Your task to perform on an android device: open app "Google Photos" (install if not already installed) Image 0: 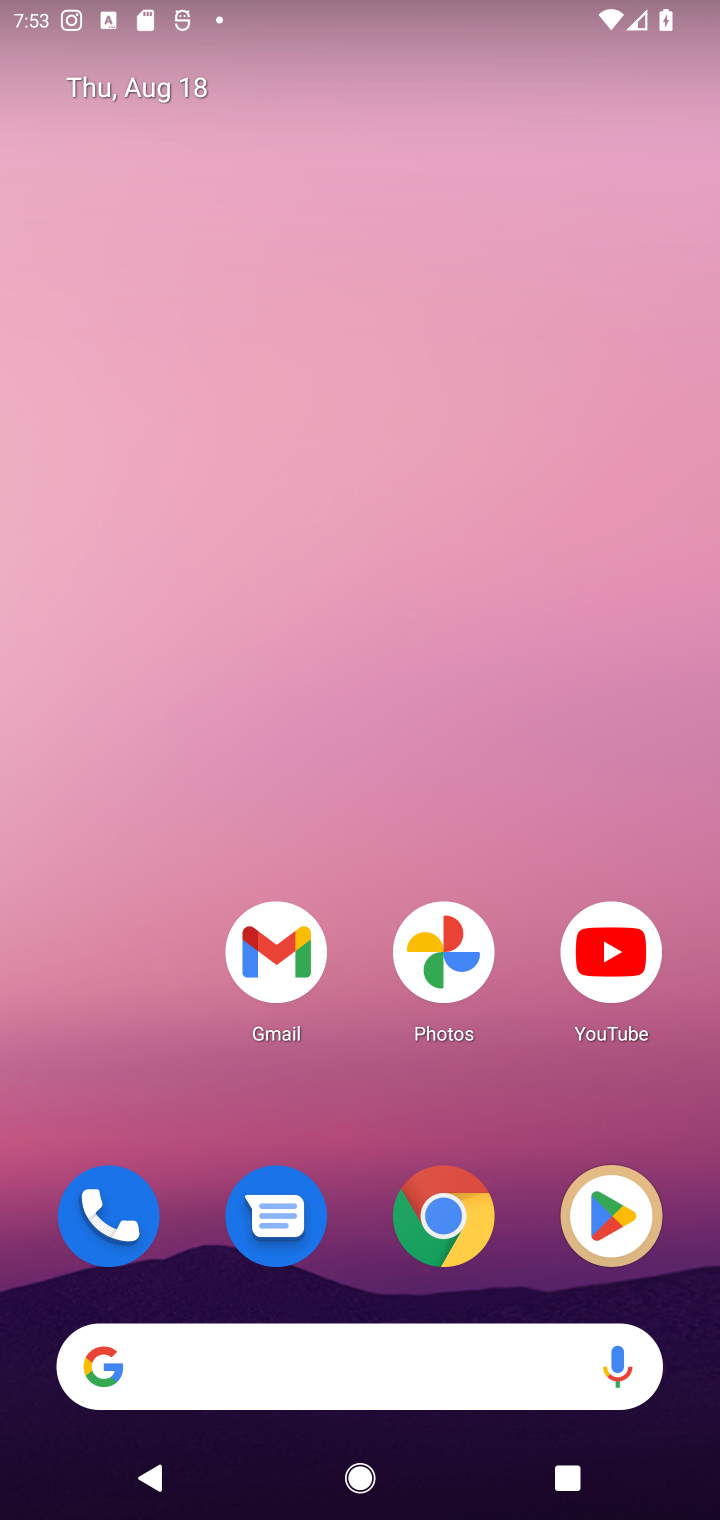
Step 0: click (602, 1195)
Your task to perform on an android device: open app "Google Photos" (install if not already installed) Image 1: 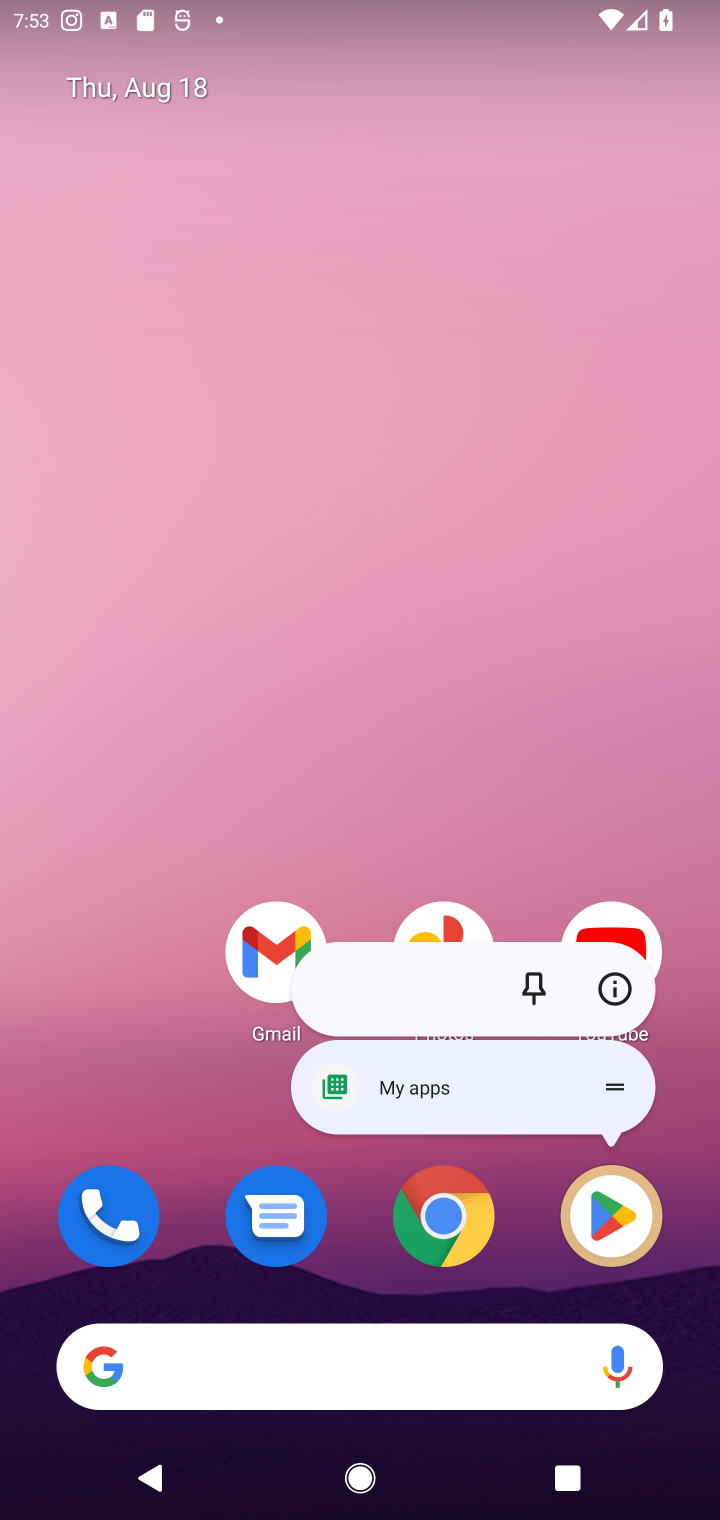
Step 1: click (593, 1233)
Your task to perform on an android device: open app "Google Photos" (install if not already installed) Image 2: 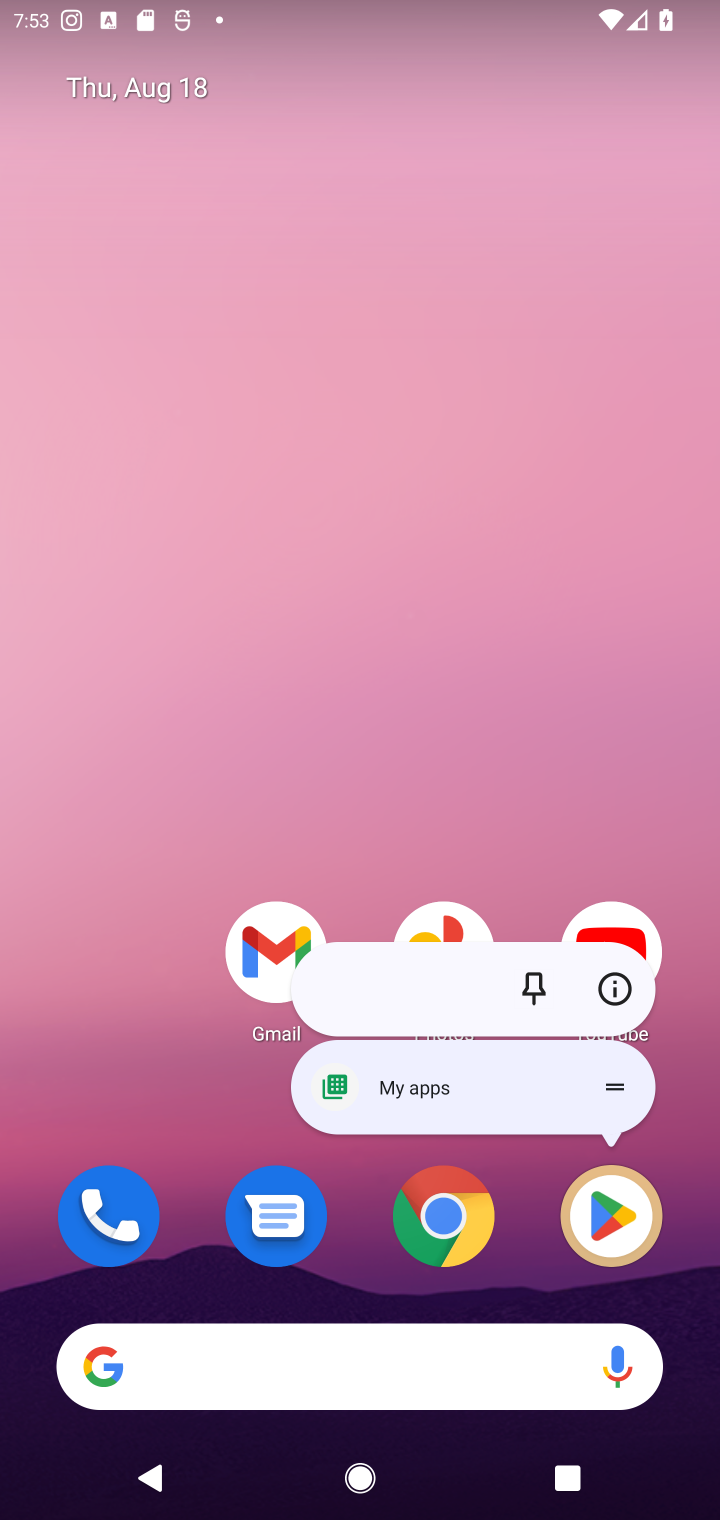
Step 2: click (444, 744)
Your task to perform on an android device: open app "Google Photos" (install if not already installed) Image 3: 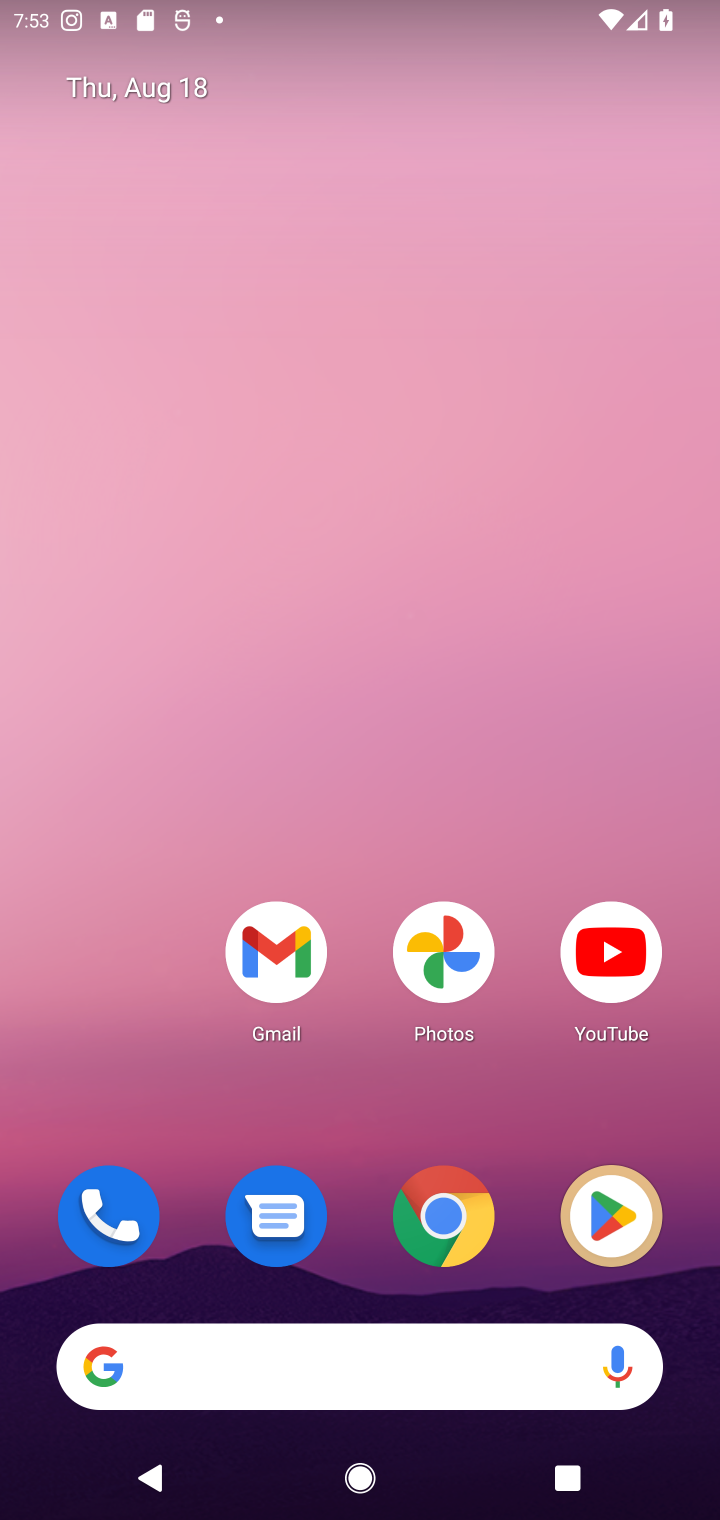
Step 3: click (428, 910)
Your task to perform on an android device: open app "Google Photos" (install if not already installed) Image 4: 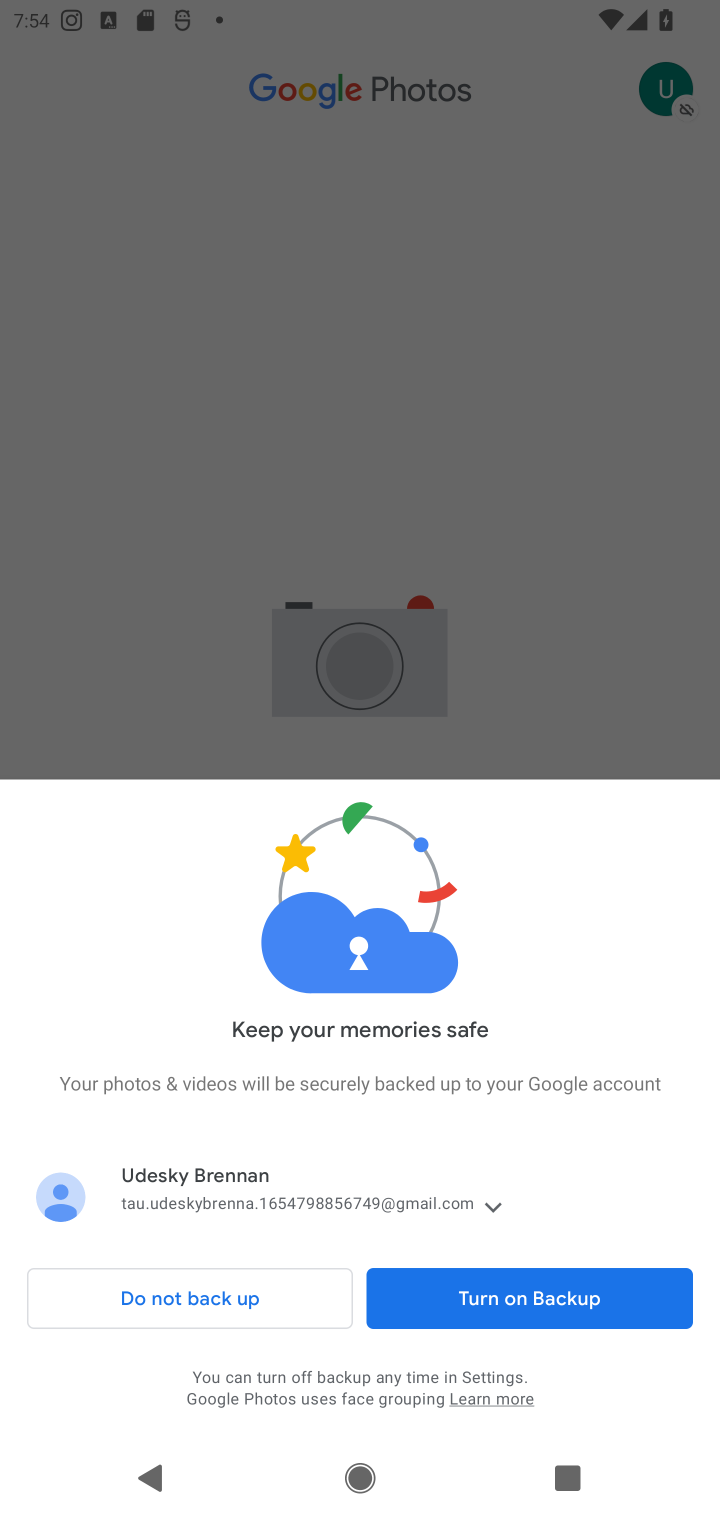
Step 4: press home button
Your task to perform on an android device: open app "Google Photos" (install if not already installed) Image 5: 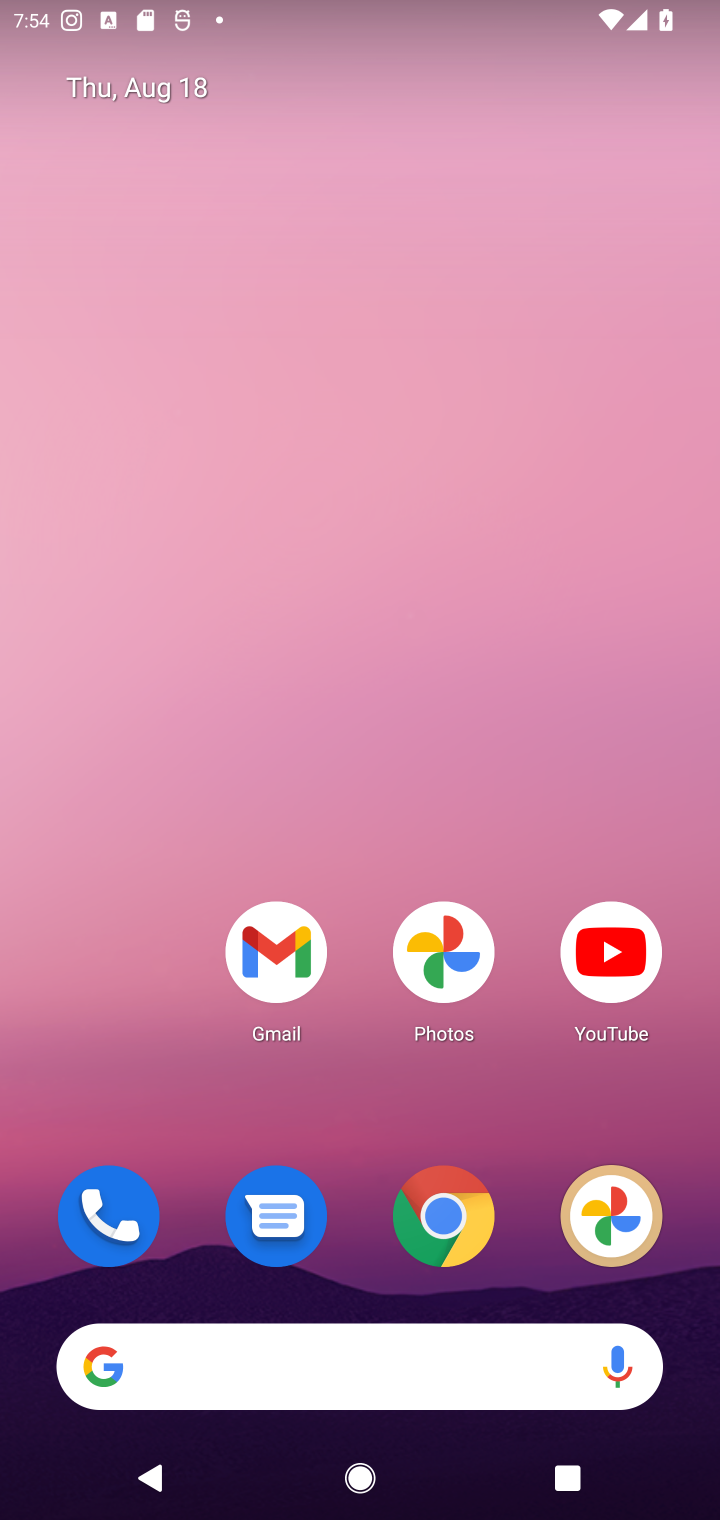
Step 5: drag from (374, 1074) to (409, 185)
Your task to perform on an android device: open app "Google Photos" (install if not already installed) Image 6: 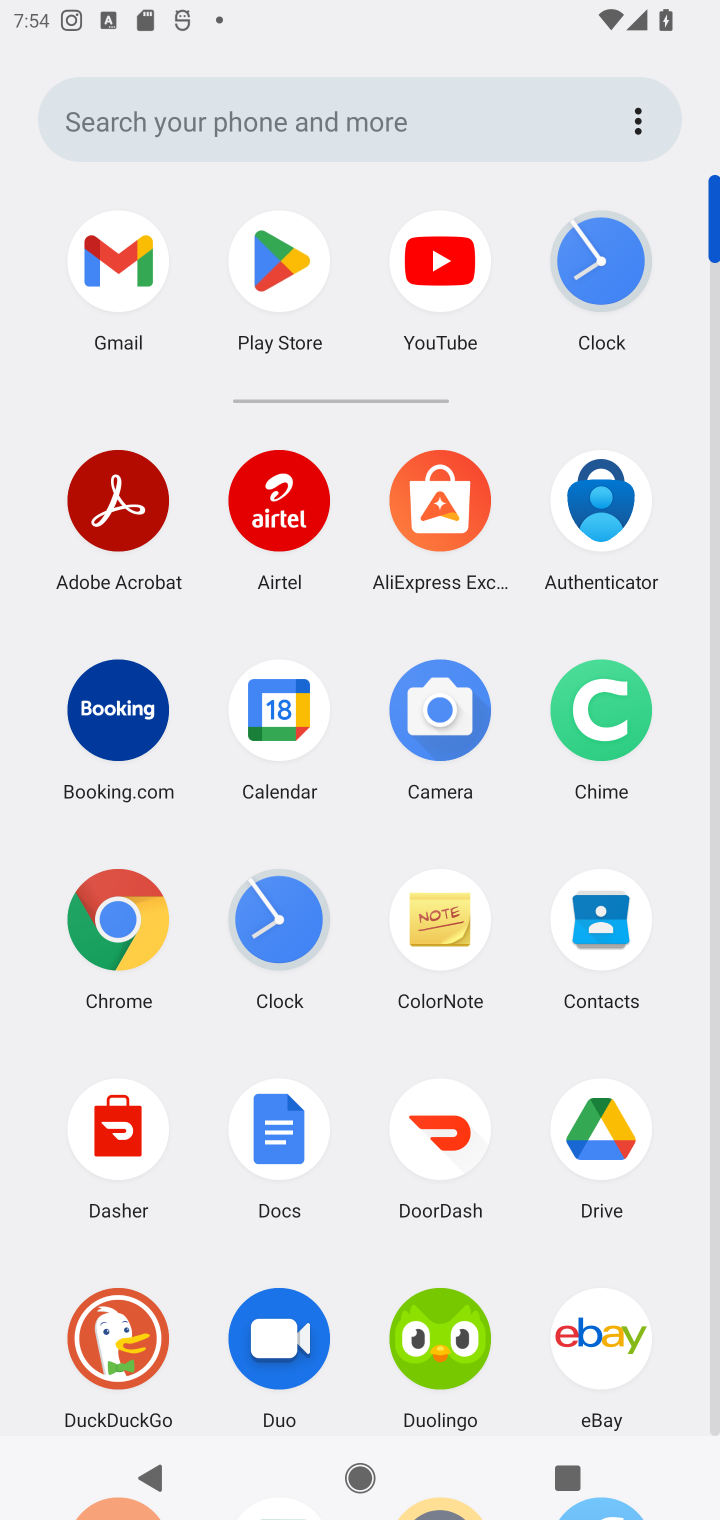
Step 6: press back button
Your task to perform on an android device: open app "Google Photos" (install if not already installed) Image 7: 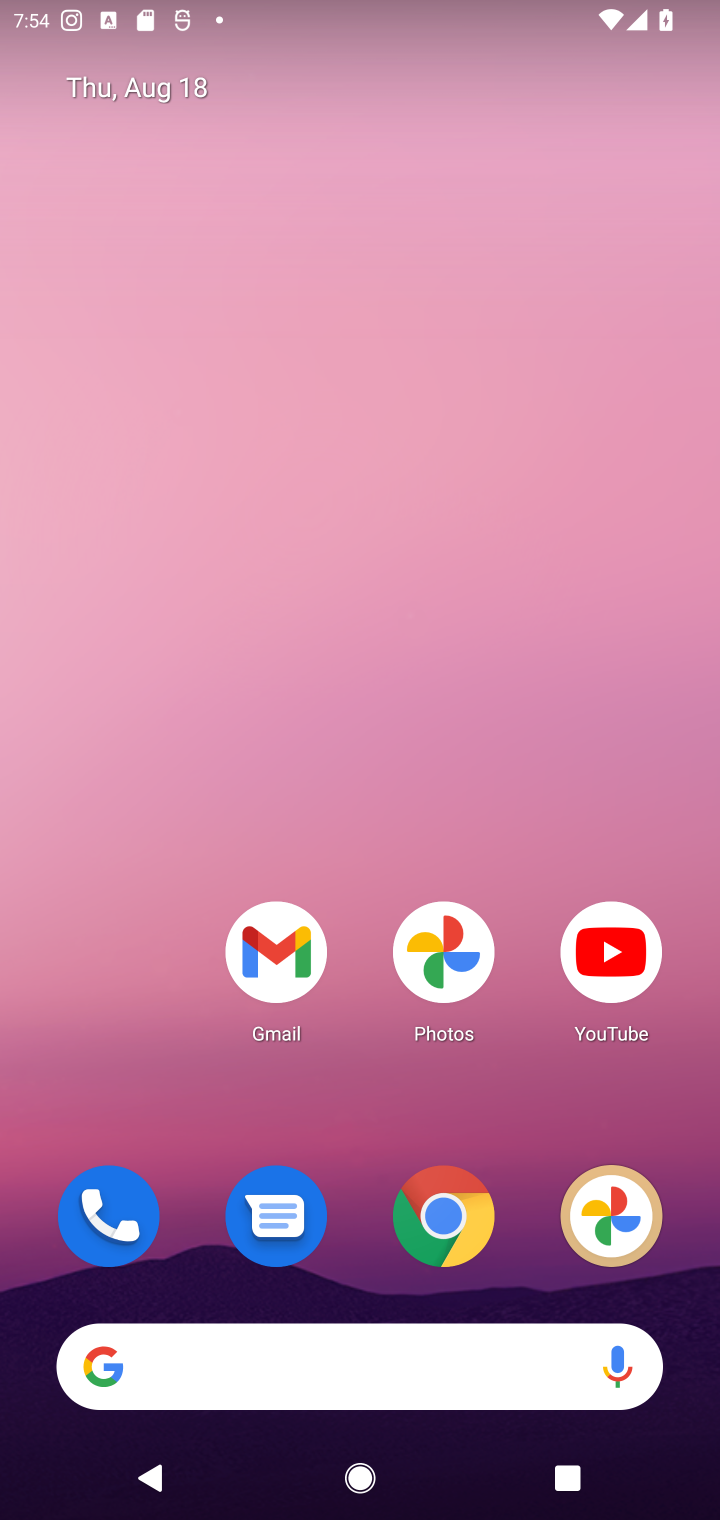
Step 7: click (458, 983)
Your task to perform on an android device: open app "Google Photos" (install if not already installed) Image 8: 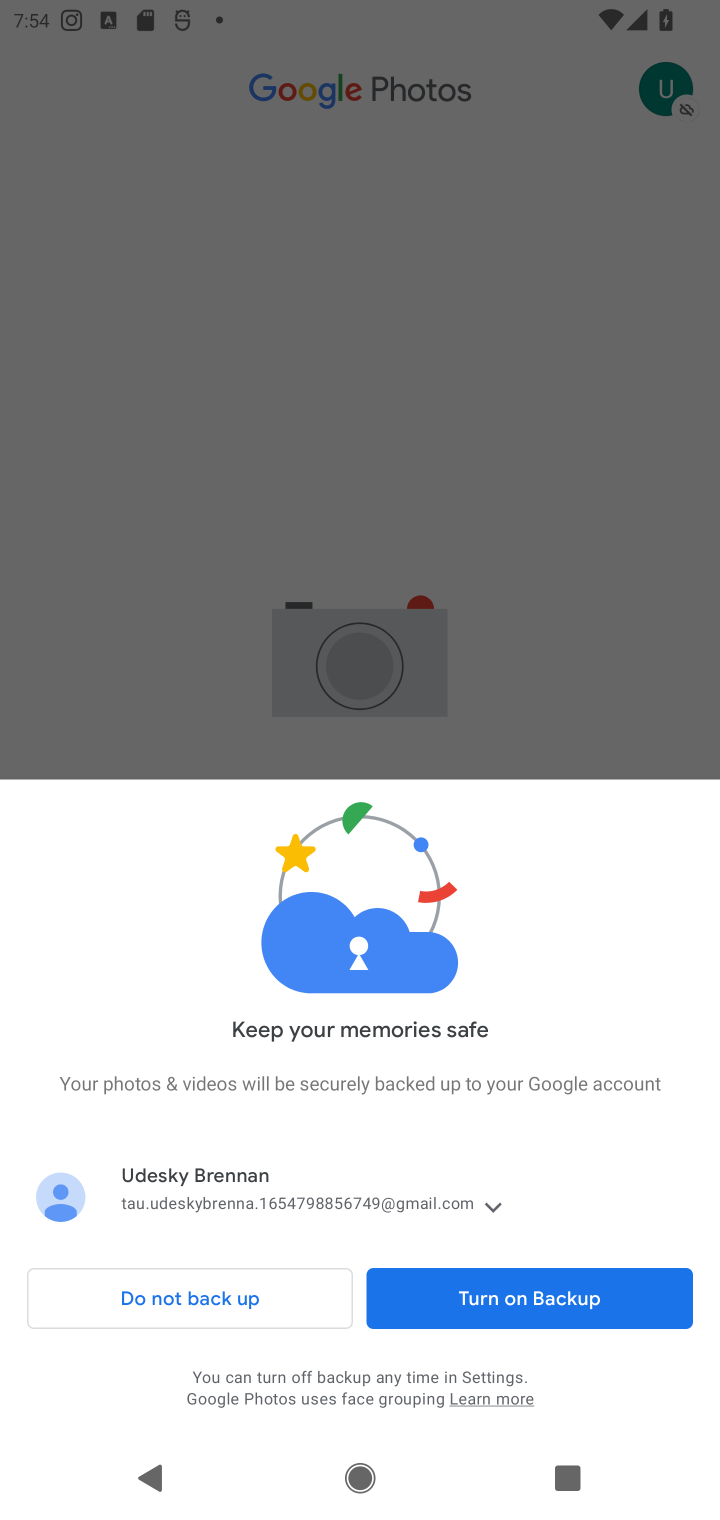
Step 8: task complete